Your task to perform on an android device: Open maps Image 0: 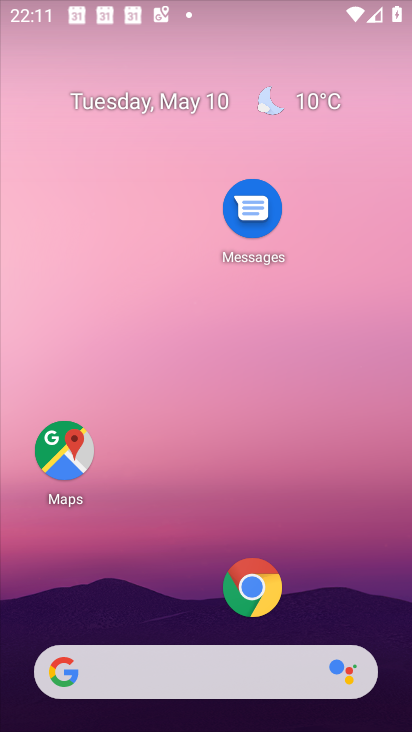
Step 0: drag from (146, 591) to (227, 25)
Your task to perform on an android device: Open maps Image 1: 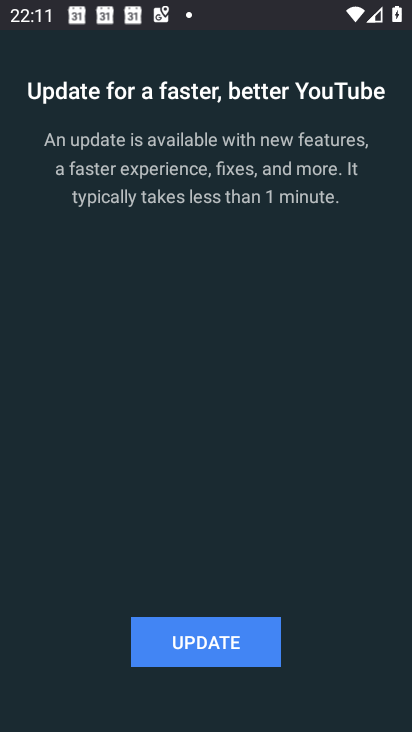
Step 1: press home button
Your task to perform on an android device: Open maps Image 2: 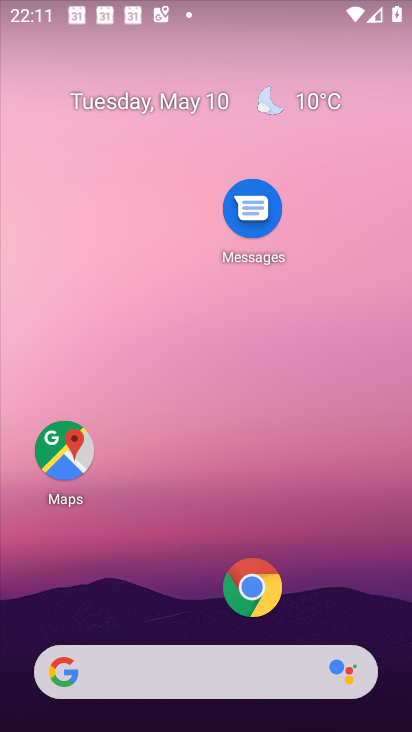
Step 2: click (66, 456)
Your task to perform on an android device: Open maps Image 3: 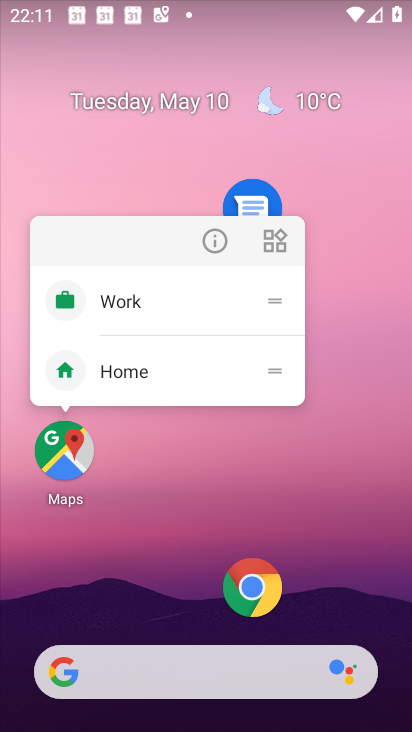
Step 3: click (70, 446)
Your task to perform on an android device: Open maps Image 4: 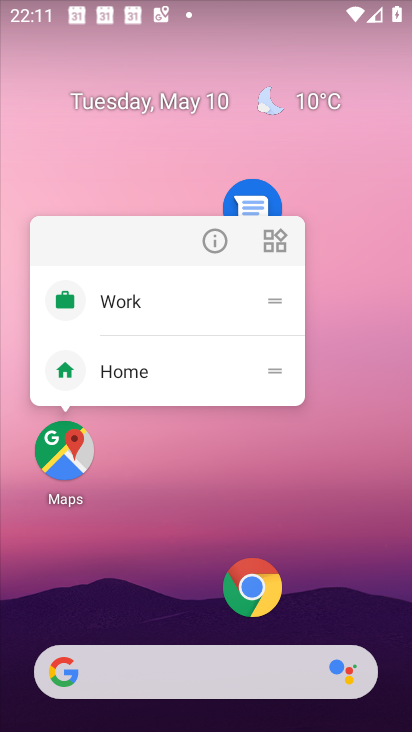
Step 4: click (74, 454)
Your task to perform on an android device: Open maps Image 5: 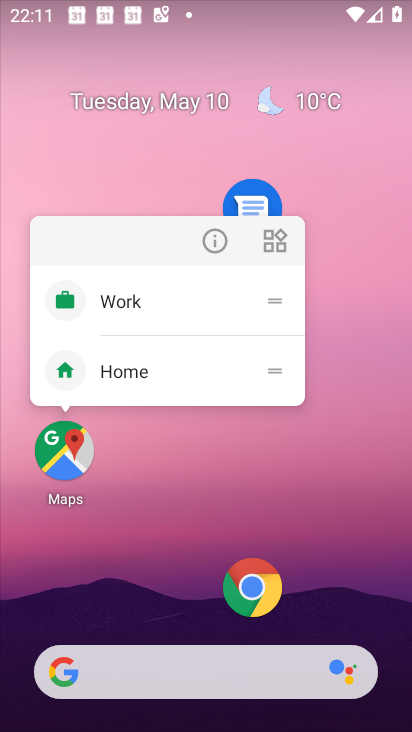
Step 5: click (74, 453)
Your task to perform on an android device: Open maps Image 6: 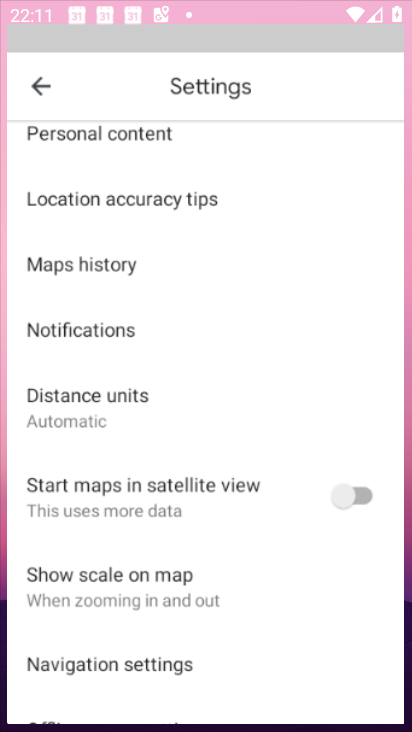
Step 6: click (74, 453)
Your task to perform on an android device: Open maps Image 7: 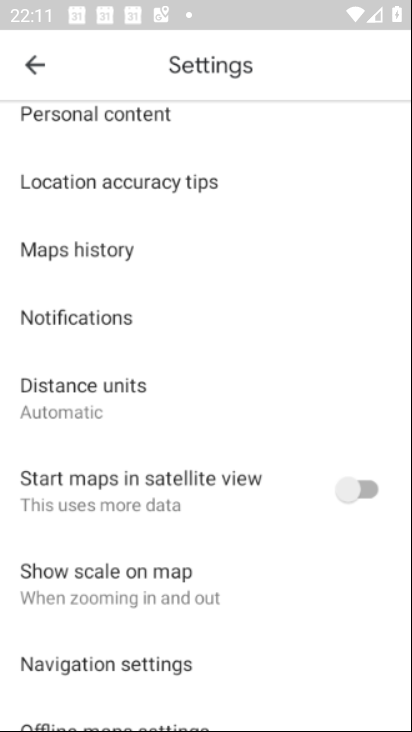
Step 7: click (74, 453)
Your task to perform on an android device: Open maps Image 8: 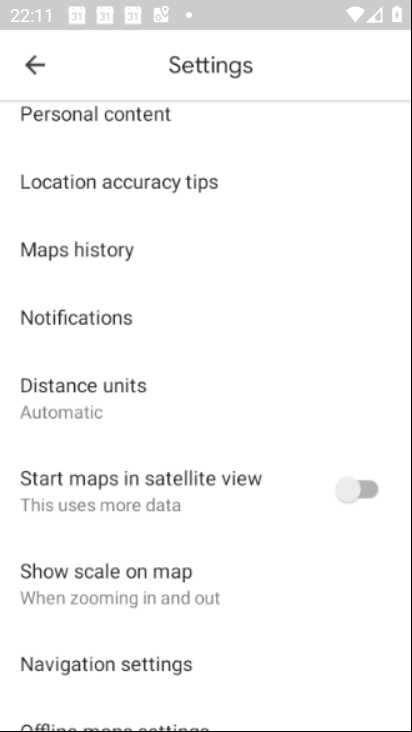
Step 8: click (74, 453)
Your task to perform on an android device: Open maps Image 9: 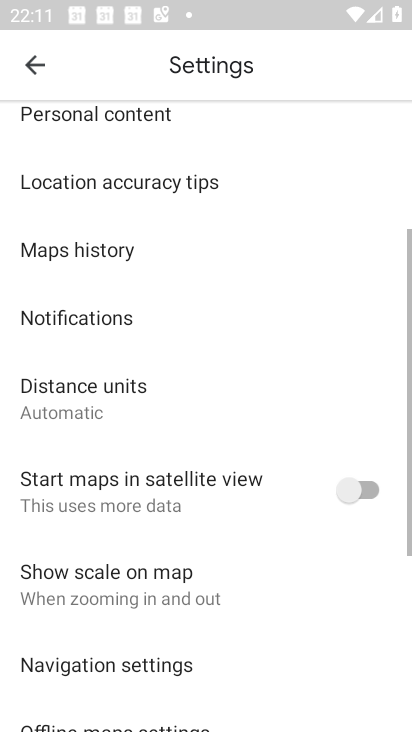
Step 9: click (38, 57)
Your task to perform on an android device: Open maps Image 10: 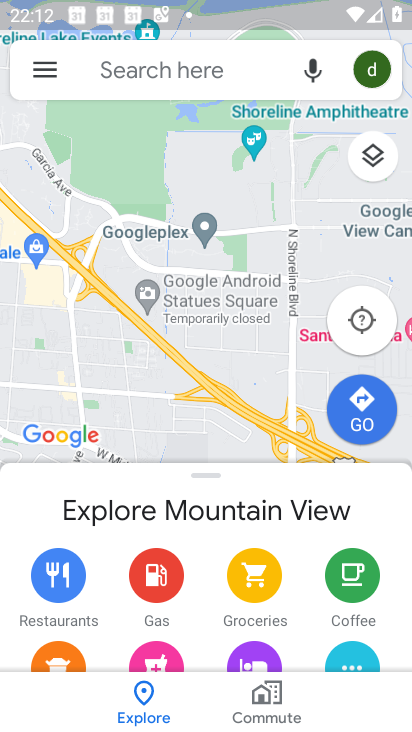
Step 10: task complete